Your task to perform on an android device: check google app version Image 0: 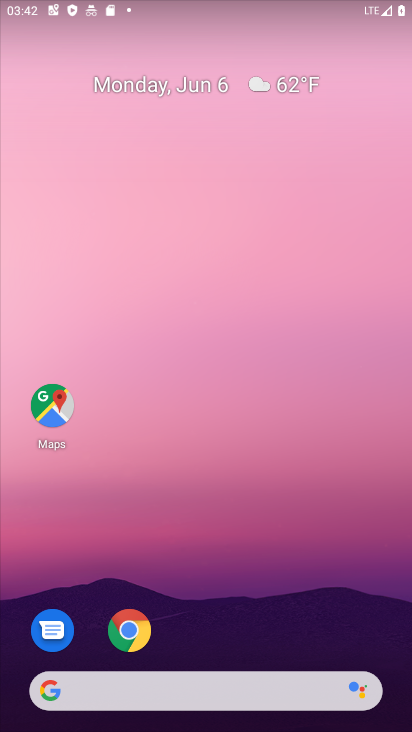
Step 0: drag from (212, 613) to (199, 174)
Your task to perform on an android device: check google app version Image 1: 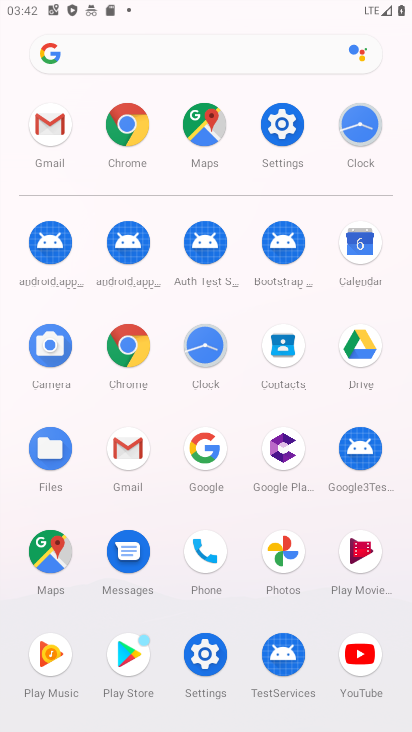
Step 1: click (207, 448)
Your task to perform on an android device: check google app version Image 2: 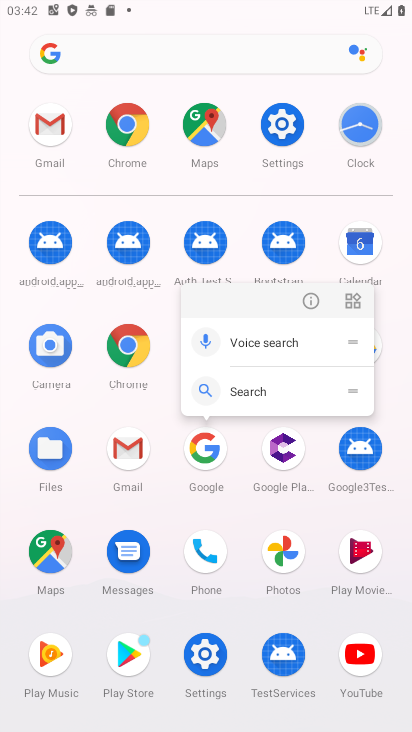
Step 2: click (318, 304)
Your task to perform on an android device: check google app version Image 3: 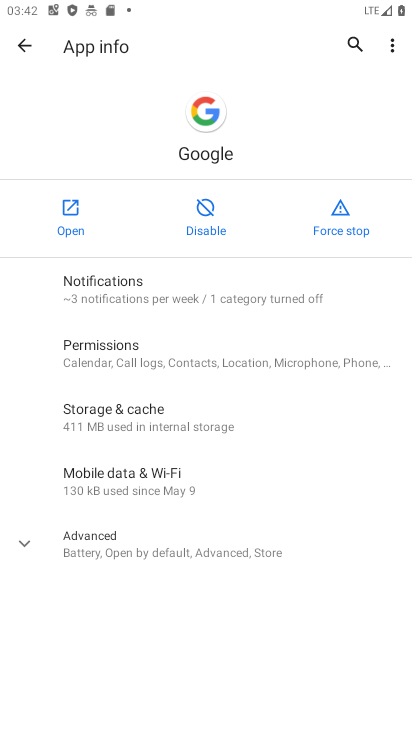
Step 3: click (195, 551)
Your task to perform on an android device: check google app version Image 4: 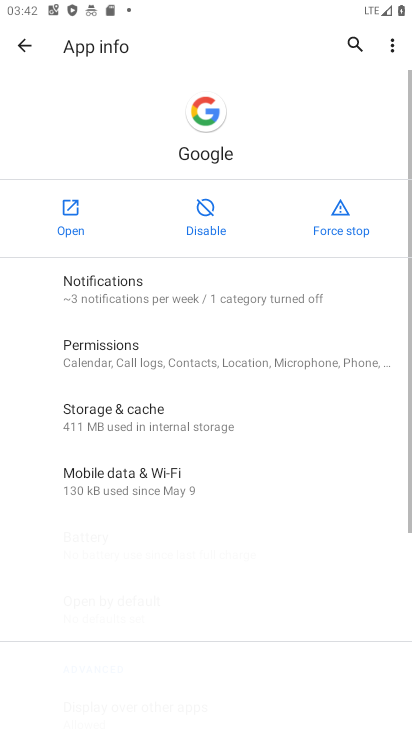
Step 4: task complete